Your task to perform on an android device: Open battery settings Image 0: 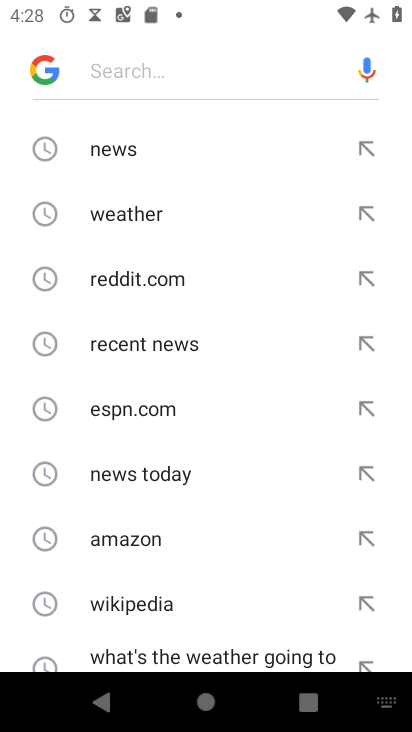
Step 0: press home button
Your task to perform on an android device: Open battery settings Image 1: 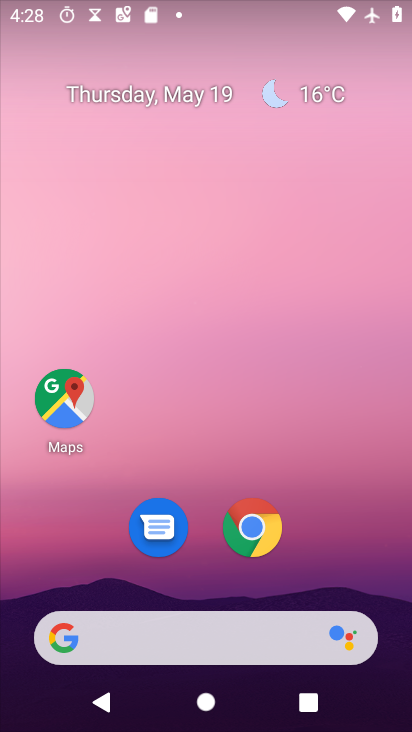
Step 1: drag from (356, 573) to (263, 53)
Your task to perform on an android device: Open battery settings Image 2: 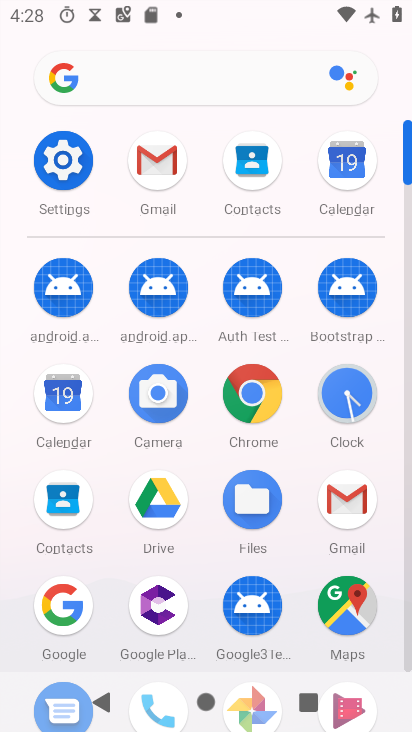
Step 2: click (57, 148)
Your task to perform on an android device: Open battery settings Image 3: 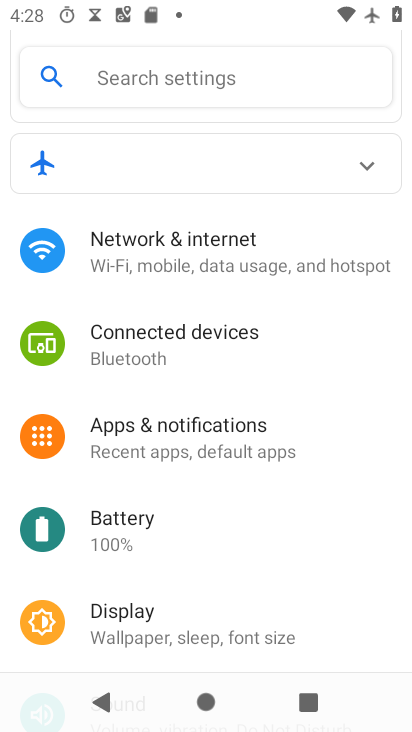
Step 3: click (266, 521)
Your task to perform on an android device: Open battery settings Image 4: 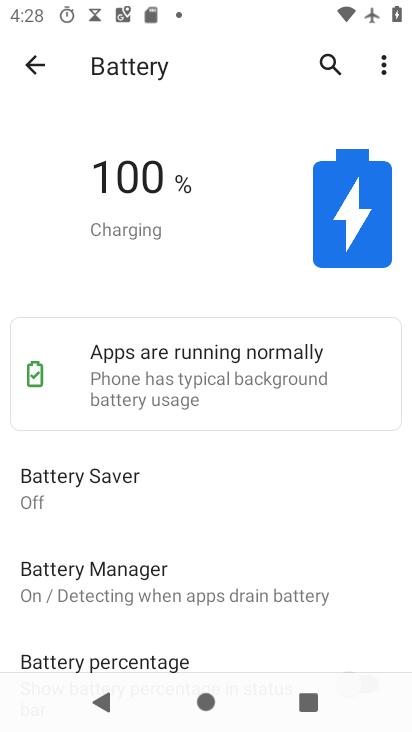
Step 4: task complete